Your task to perform on an android device: Add "razer blackwidow" to the cart on costco Image 0: 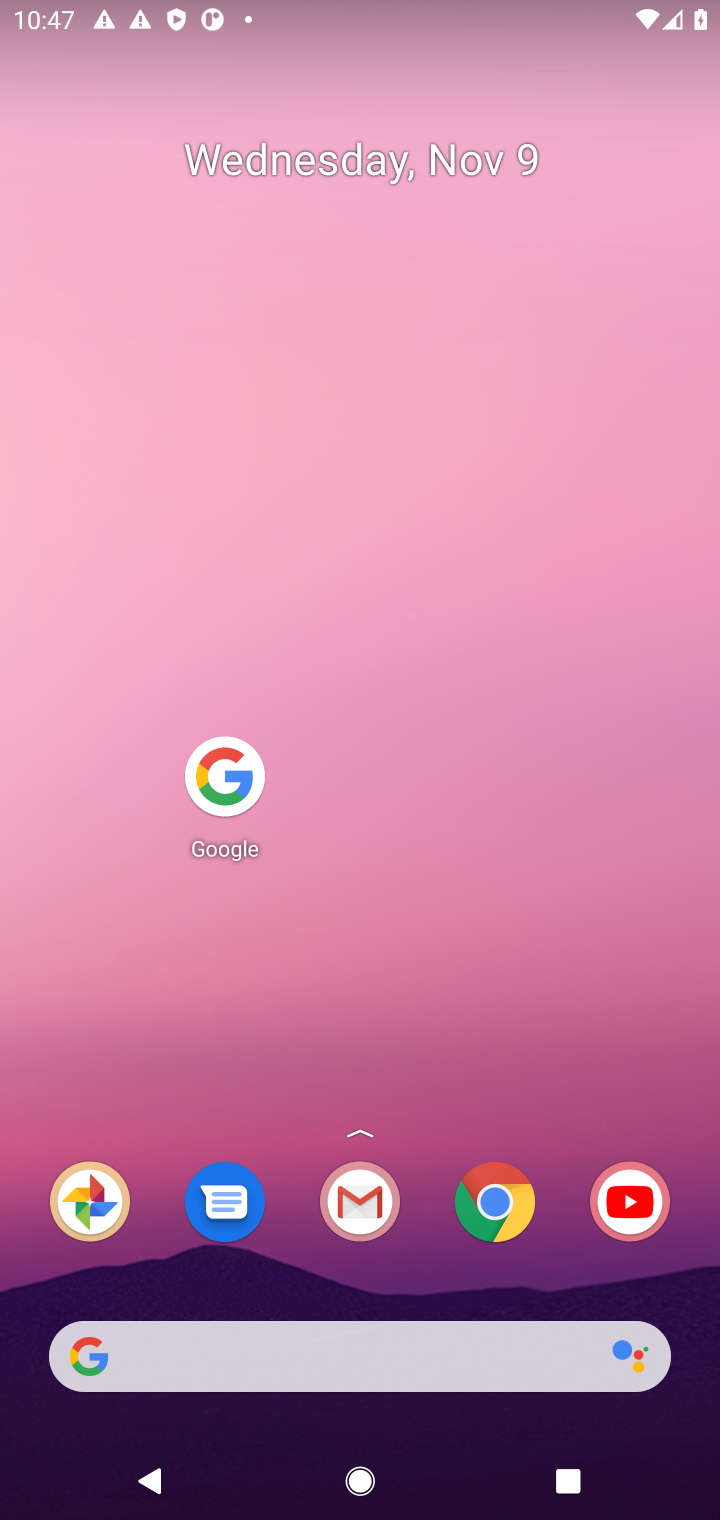
Step 0: click (212, 798)
Your task to perform on an android device: Add "razer blackwidow" to the cart on costco Image 1: 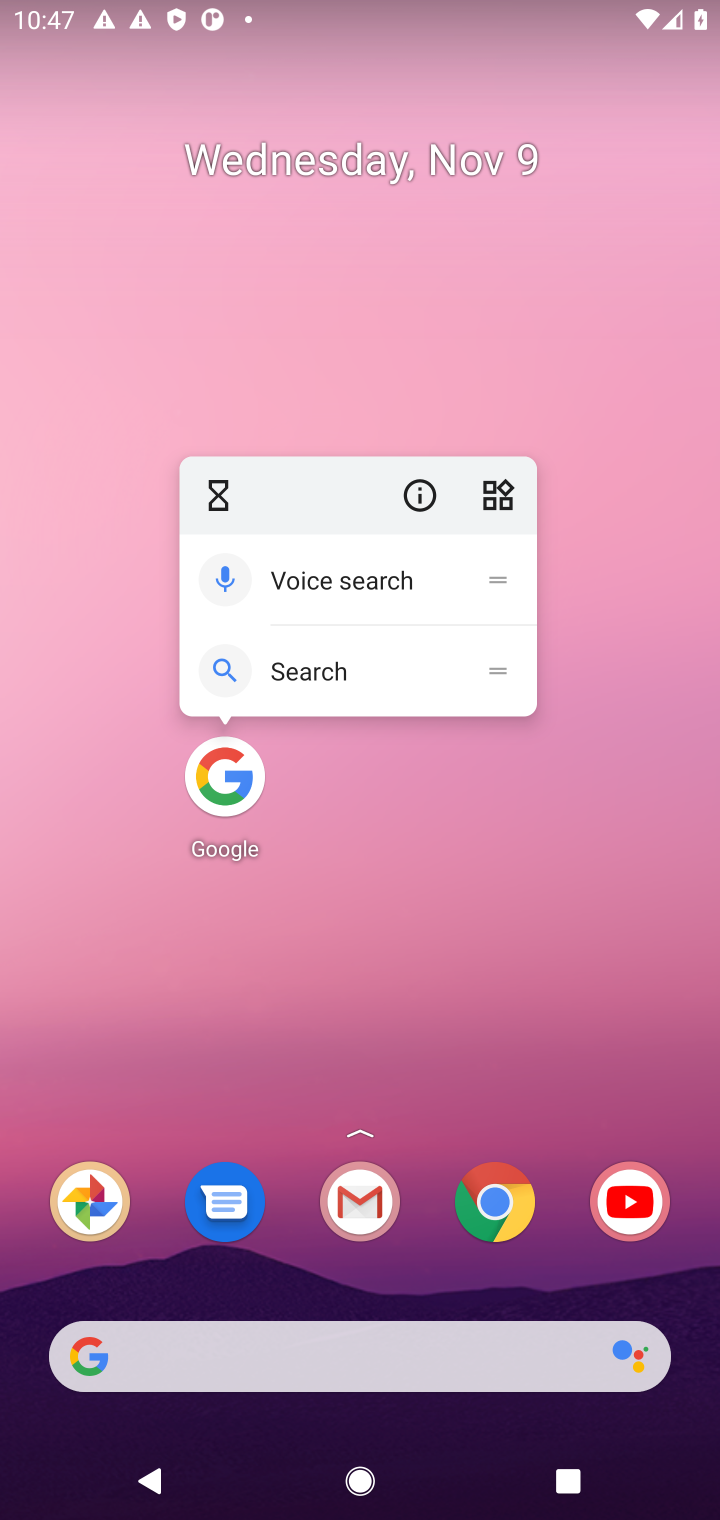
Step 1: click (230, 774)
Your task to perform on an android device: Add "razer blackwidow" to the cart on costco Image 2: 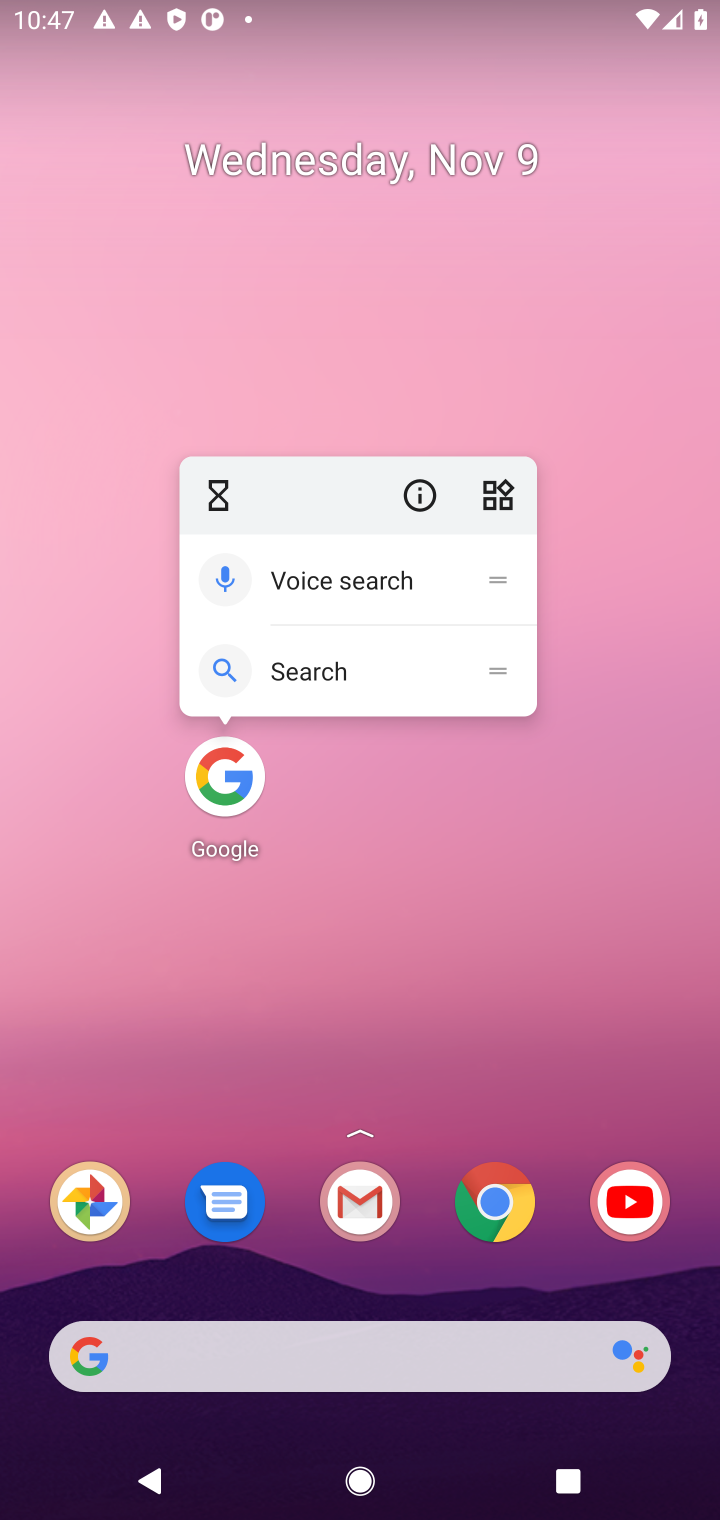
Step 2: click (230, 770)
Your task to perform on an android device: Add "razer blackwidow" to the cart on costco Image 3: 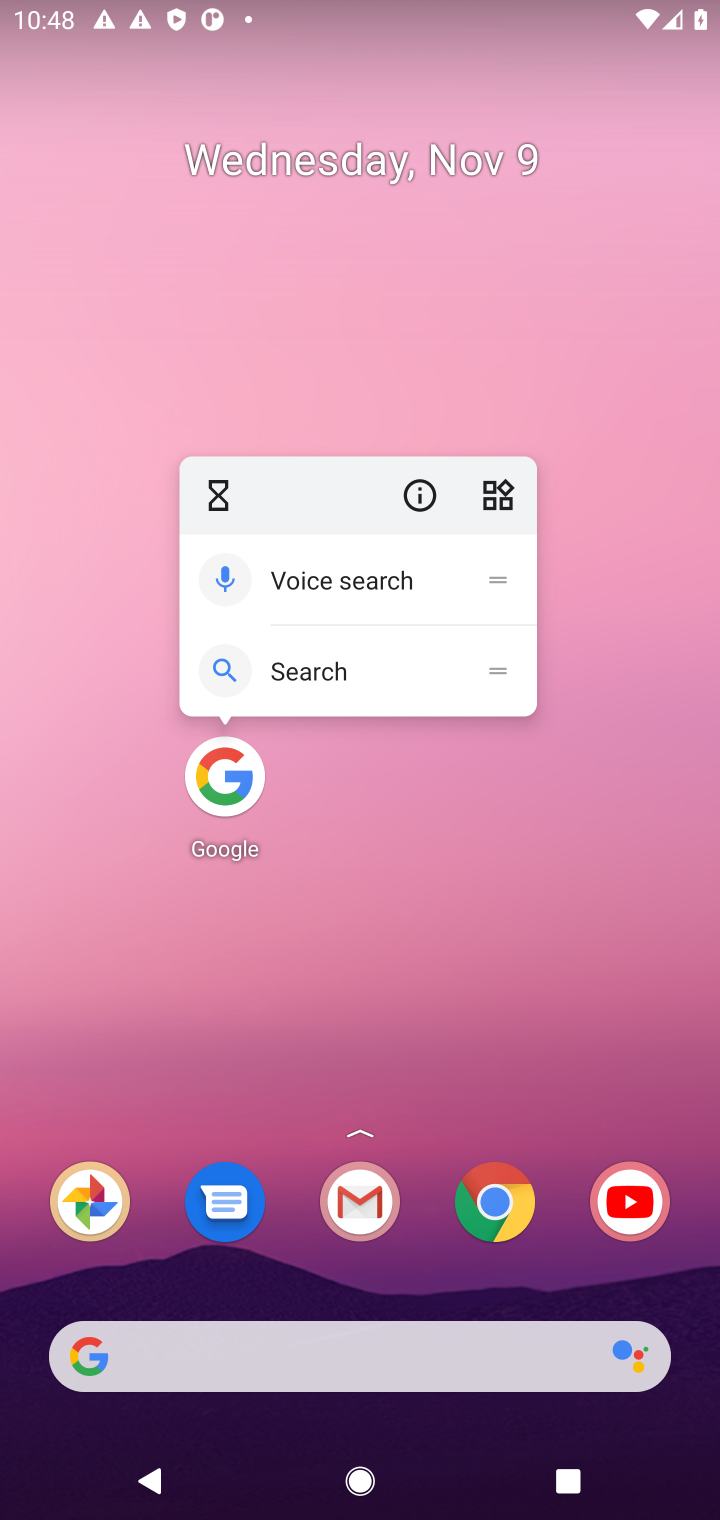
Step 3: click (230, 773)
Your task to perform on an android device: Add "razer blackwidow" to the cart on costco Image 4: 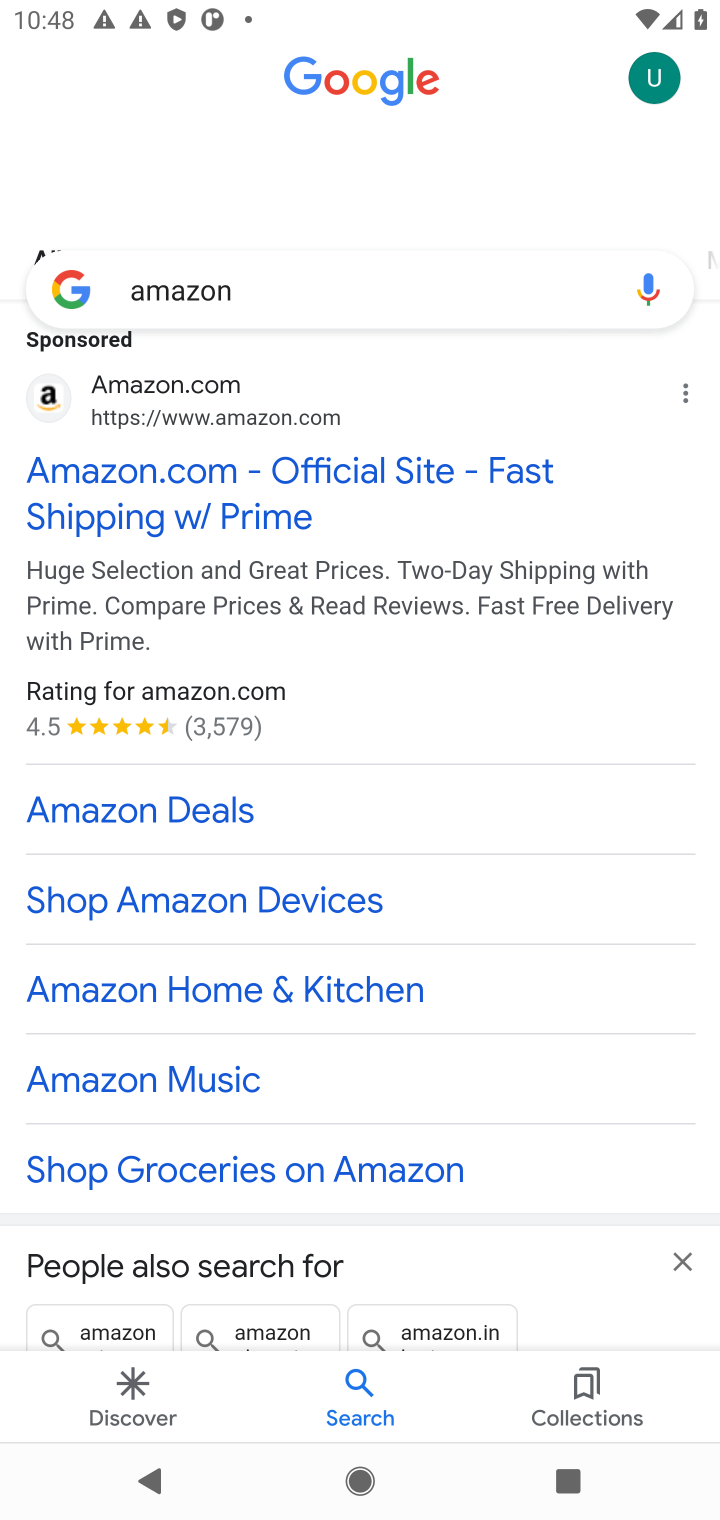
Step 4: click (241, 284)
Your task to perform on an android device: Add "razer blackwidow" to the cart on costco Image 5: 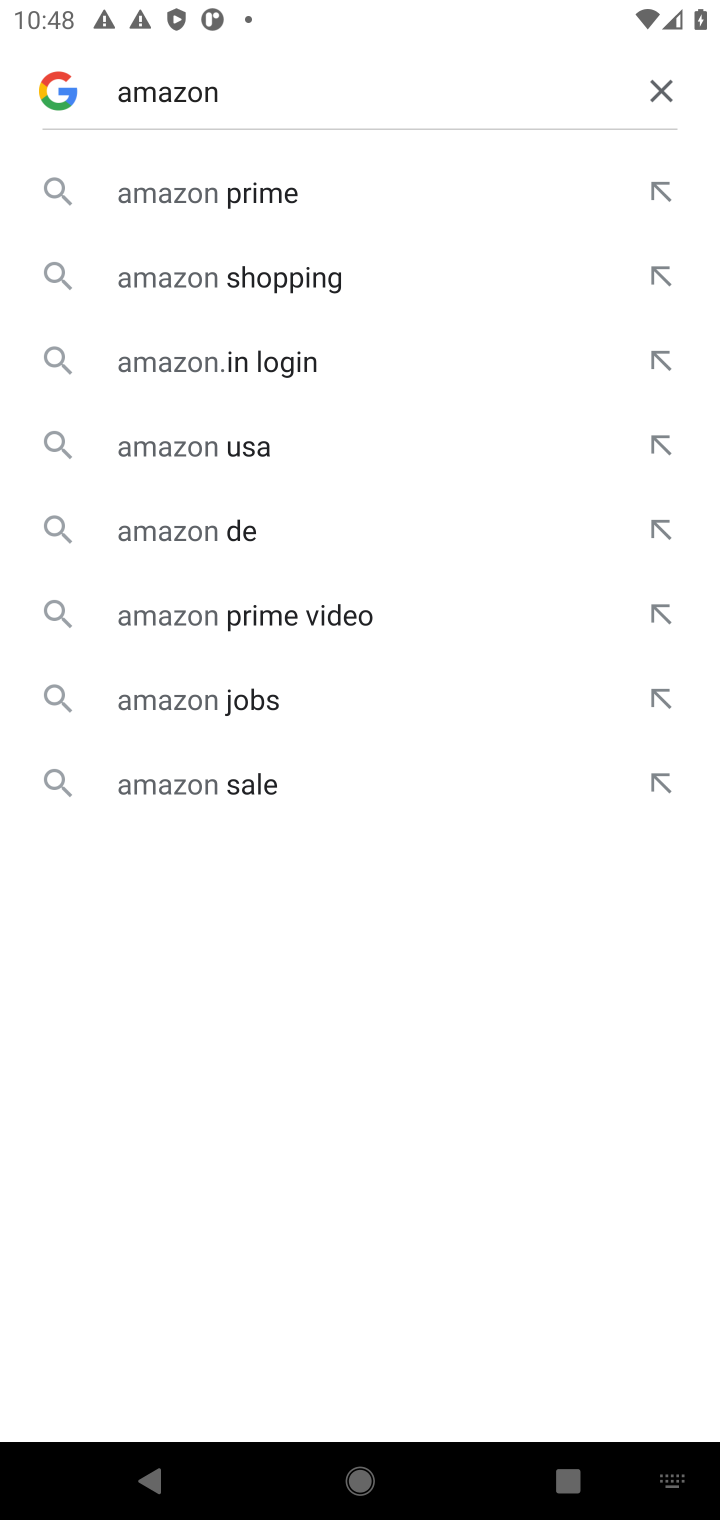
Step 5: click (649, 86)
Your task to perform on an android device: Add "razer blackwidow" to the cart on costco Image 6: 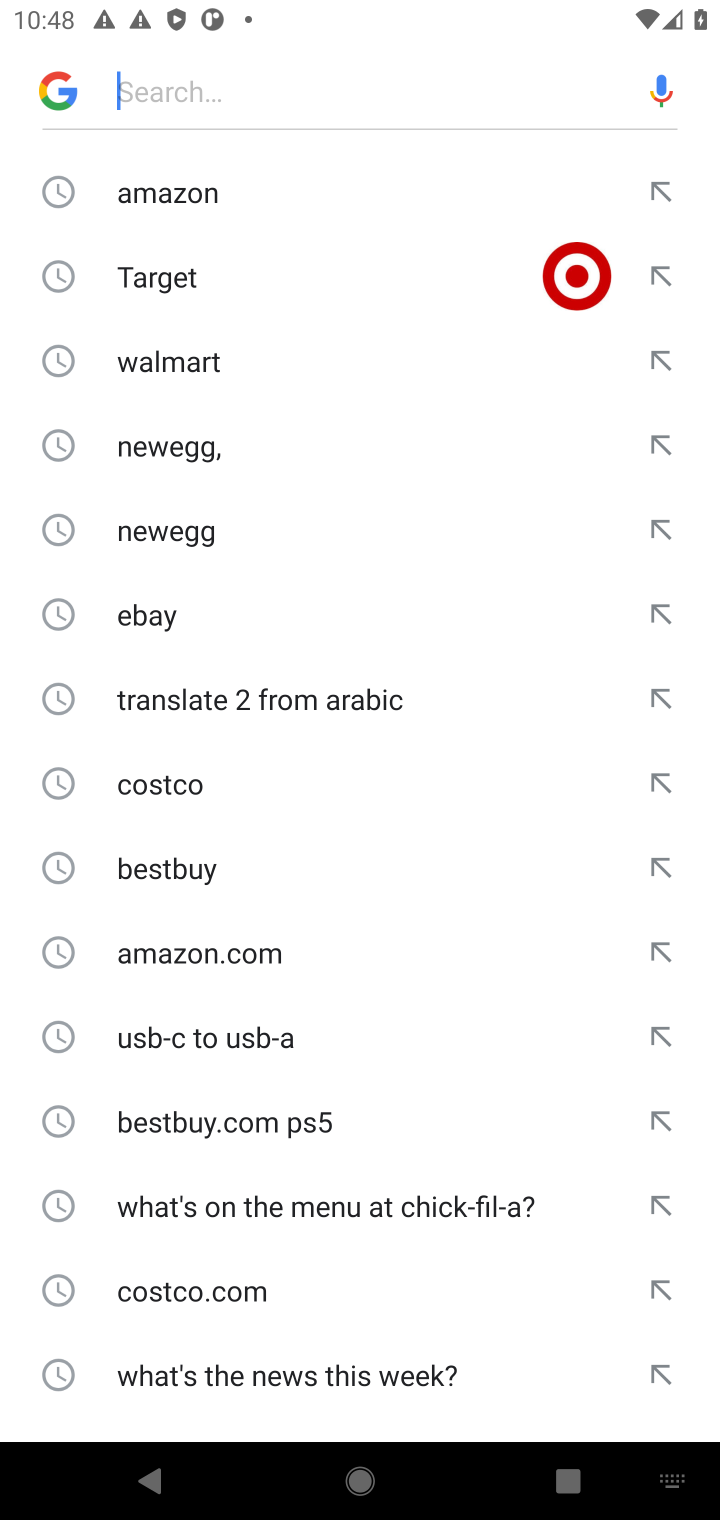
Step 6: click (188, 789)
Your task to perform on an android device: Add "razer blackwidow" to the cart on costco Image 7: 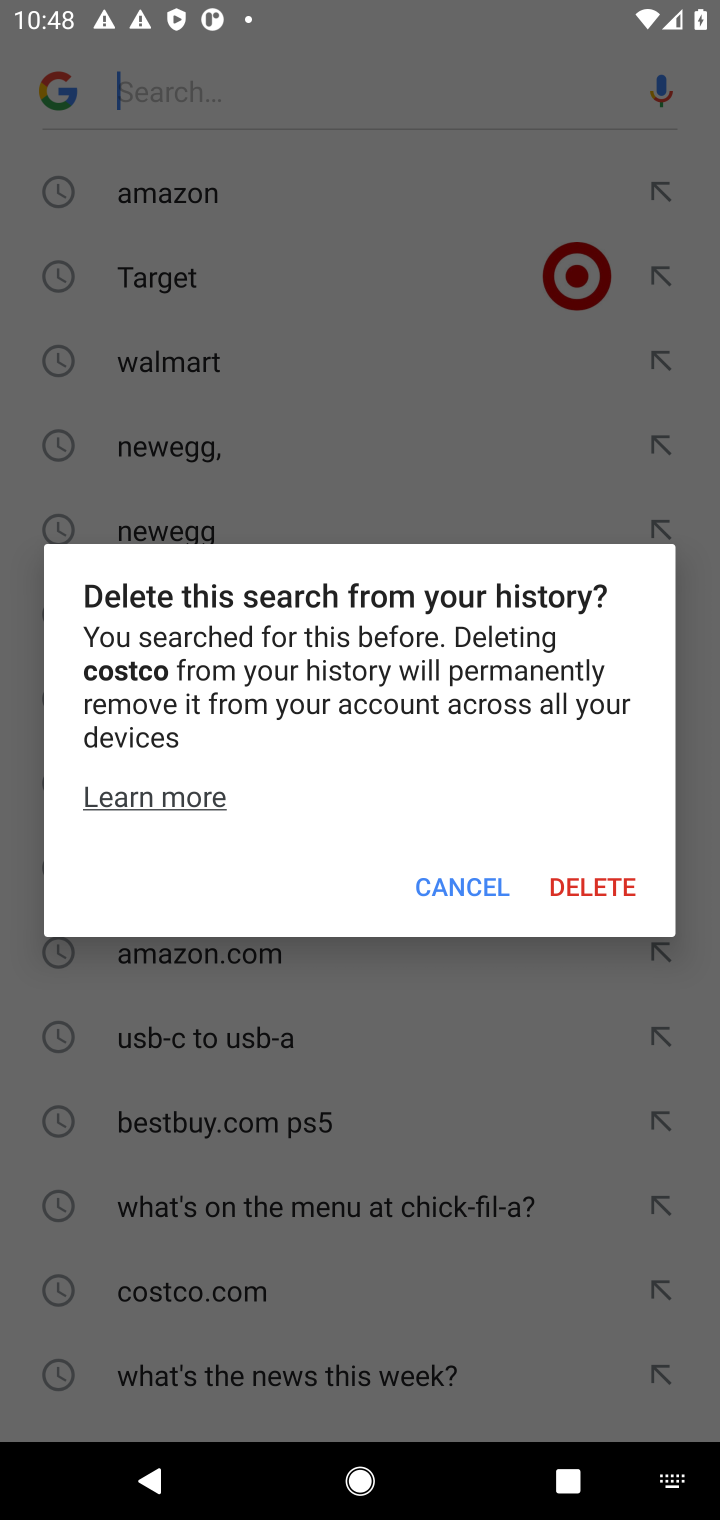
Step 7: click (447, 887)
Your task to perform on an android device: Add "razer blackwidow" to the cart on costco Image 8: 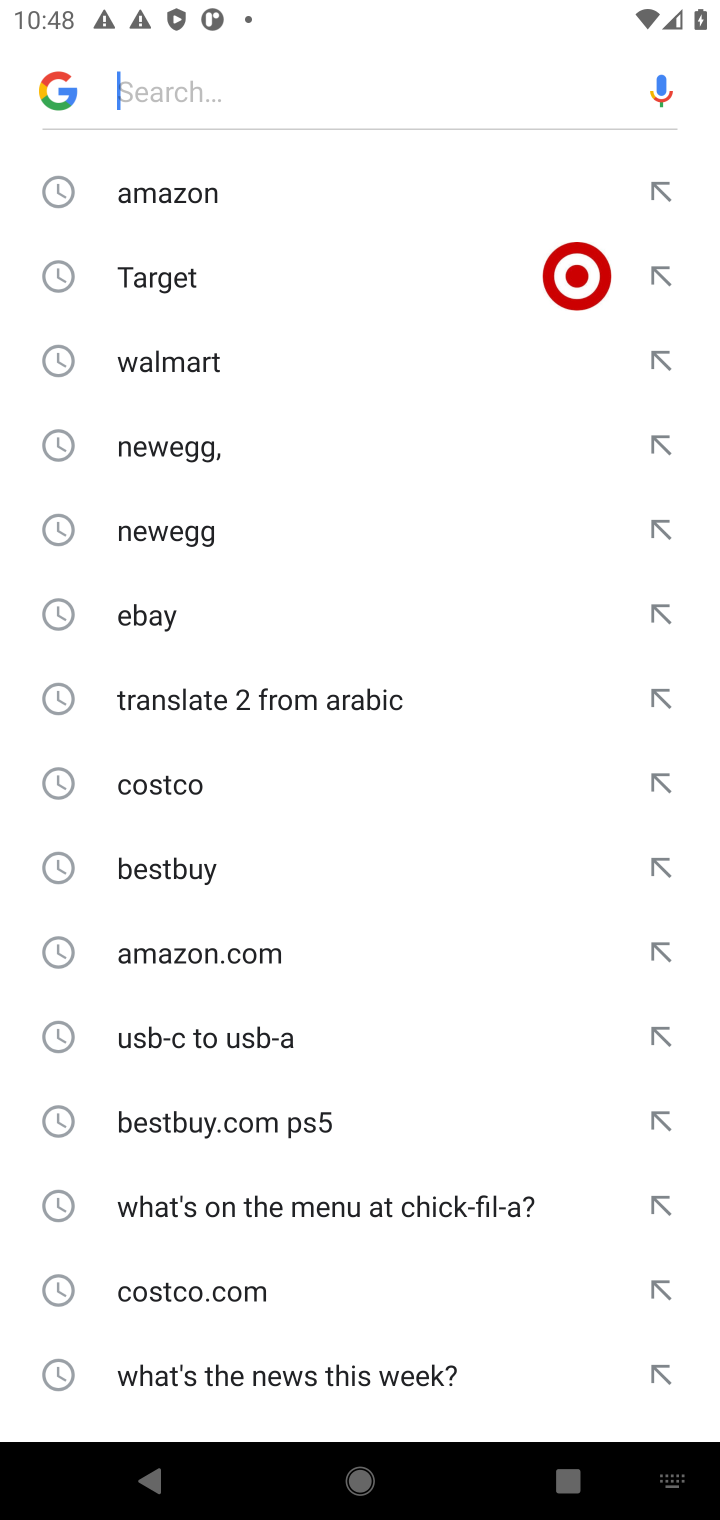
Step 8: click (130, 787)
Your task to perform on an android device: Add "razer blackwidow" to the cart on costco Image 9: 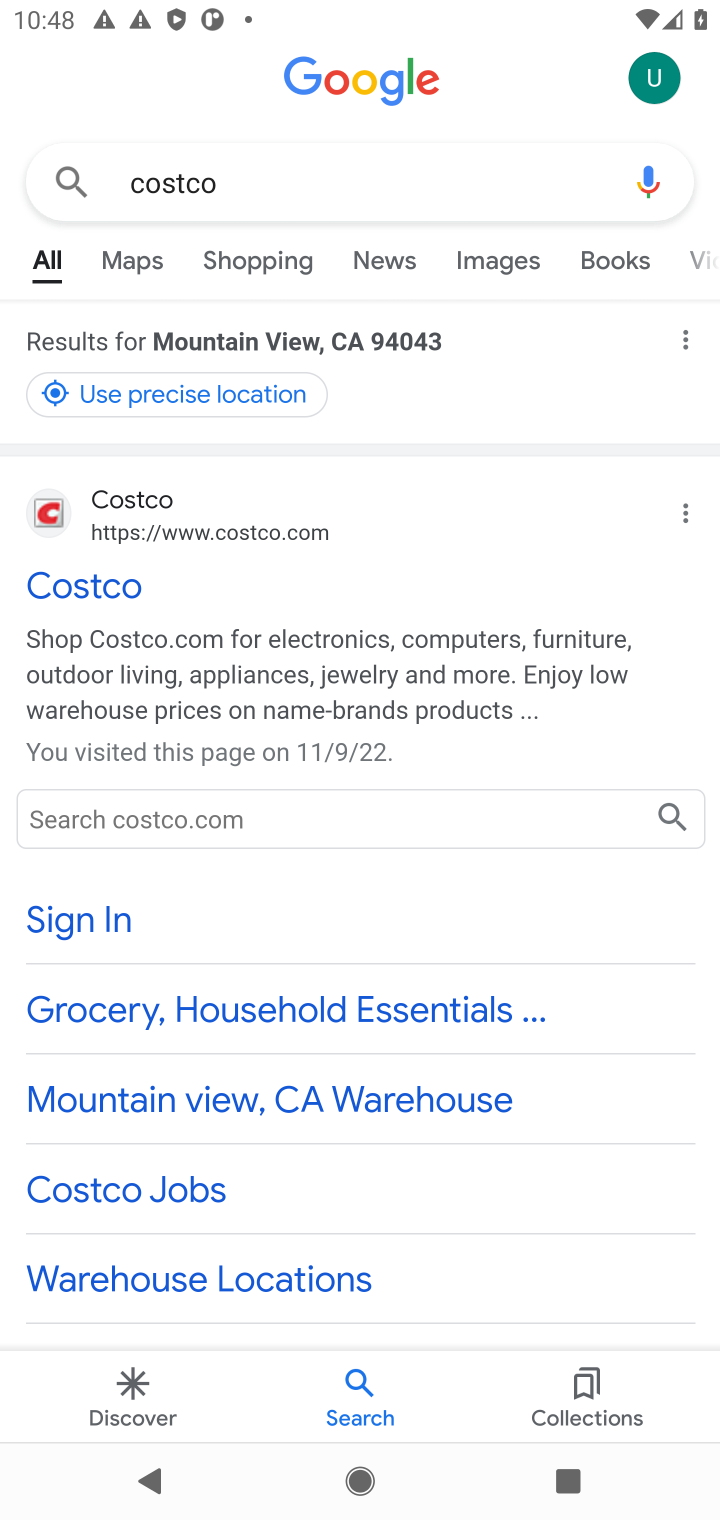
Step 9: click (112, 580)
Your task to perform on an android device: Add "razer blackwidow" to the cart on costco Image 10: 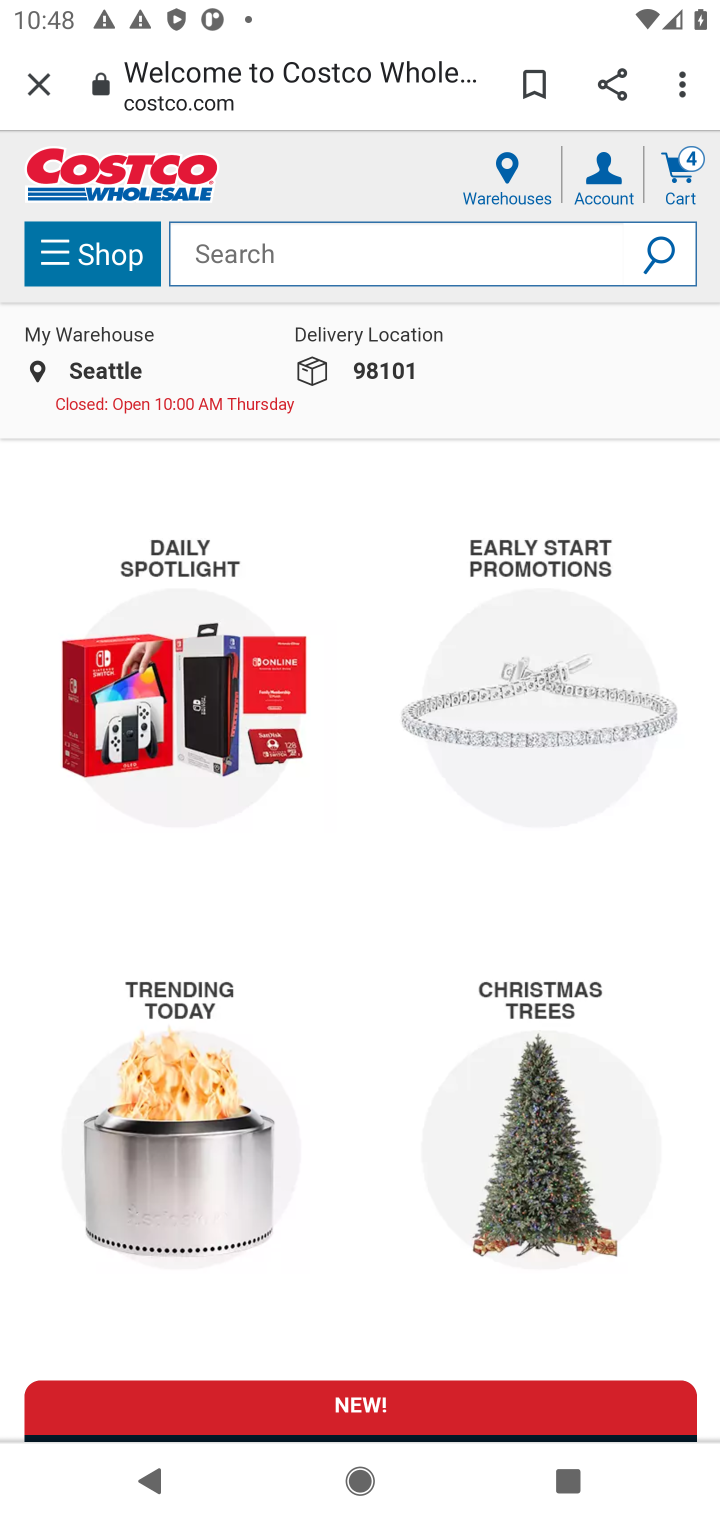
Step 10: click (305, 261)
Your task to perform on an android device: Add "razer blackwidow" to the cart on costco Image 11: 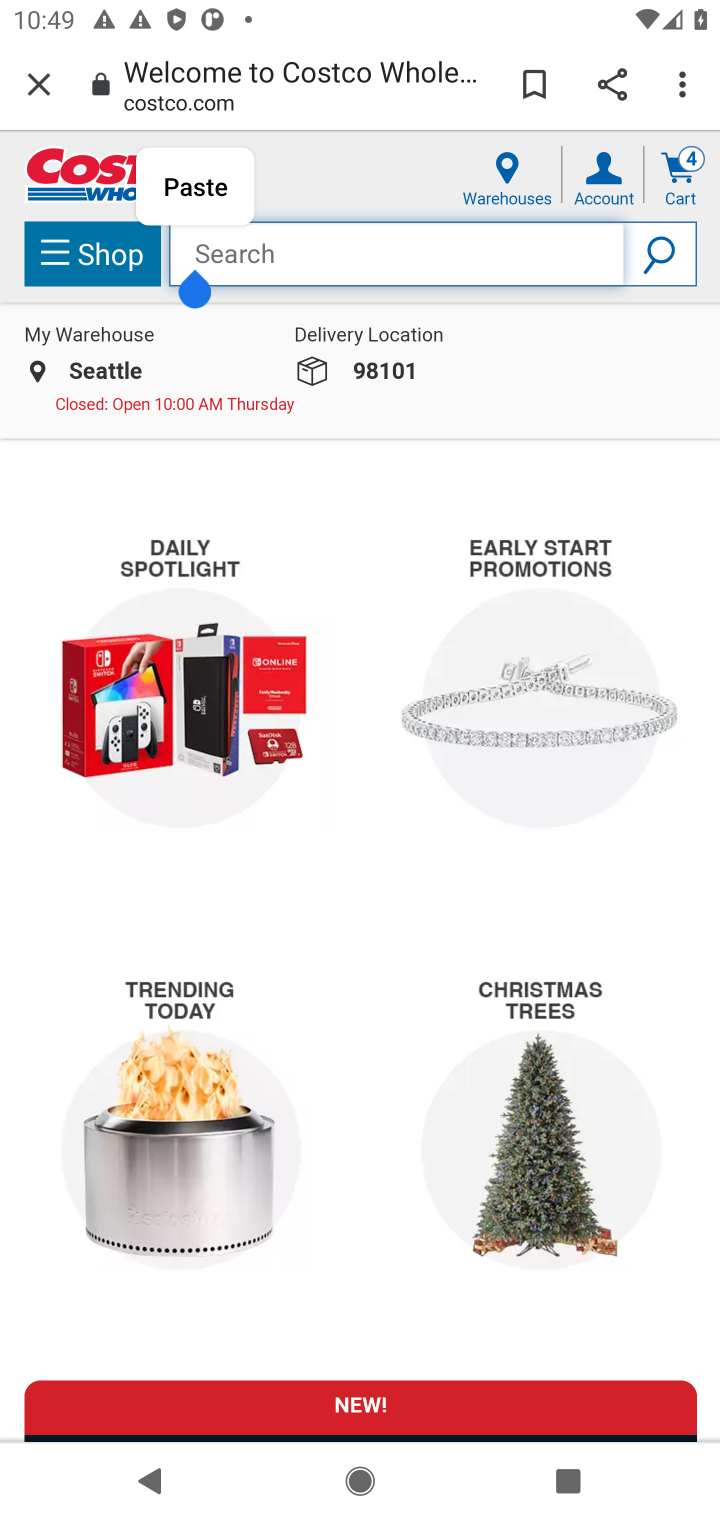
Step 11: press enter
Your task to perform on an android device: Add "razer blackwidow" to the cart on costco Image 12: 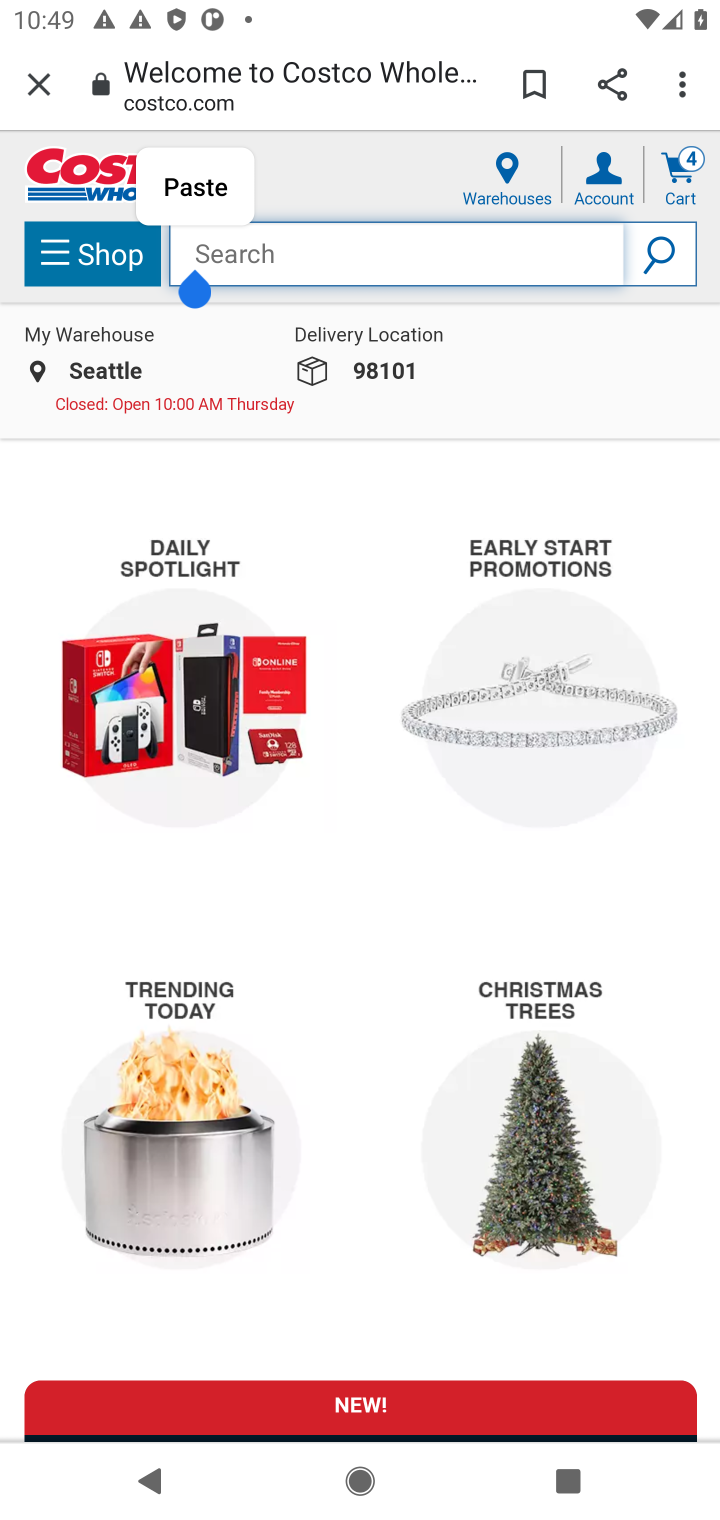
Step 12: type "razer blackwidow"
Your task to perform on an android device: Add "razer blackwidow" to the cart on costco Image 13: 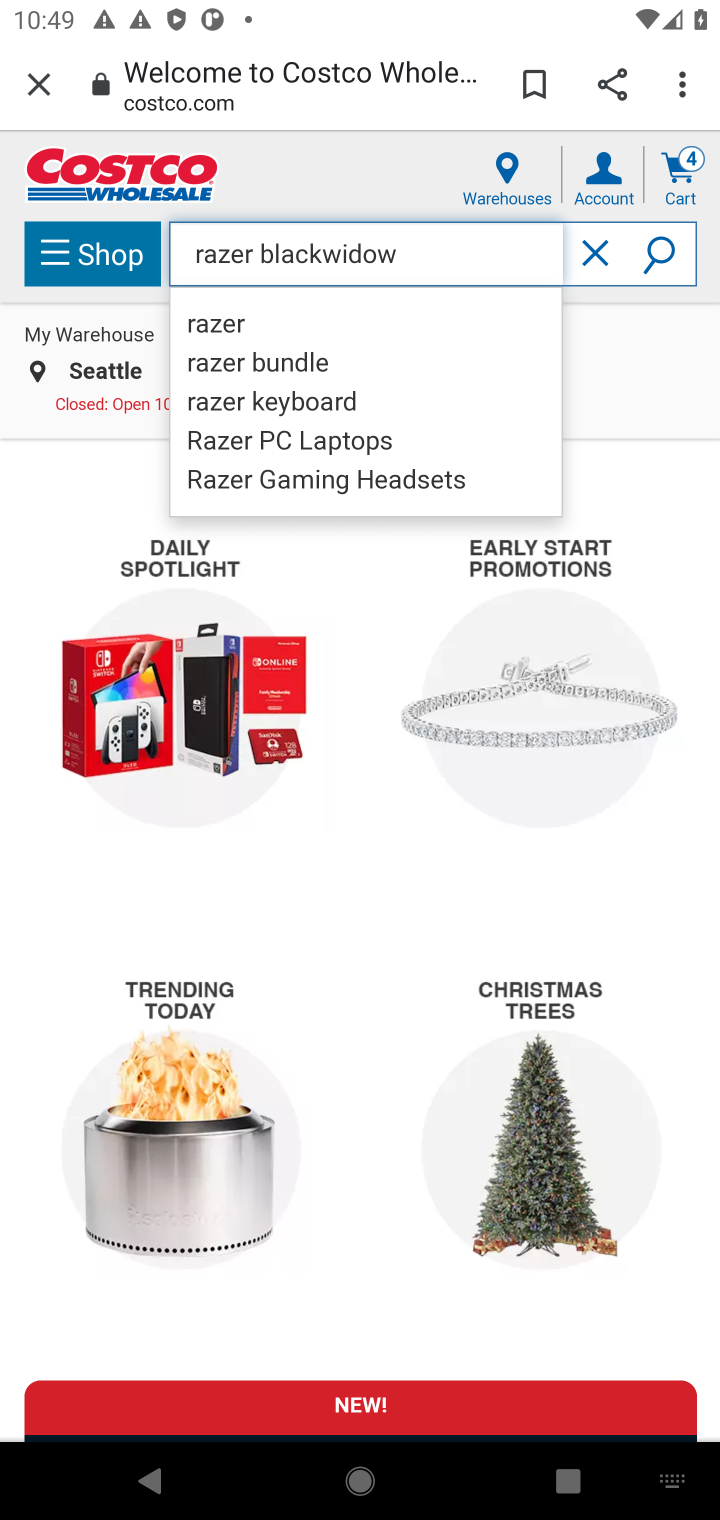
Step 13: press enter
Your task to perform on an android device: Add "razer blackwidow" to the cart on costco Image 14: 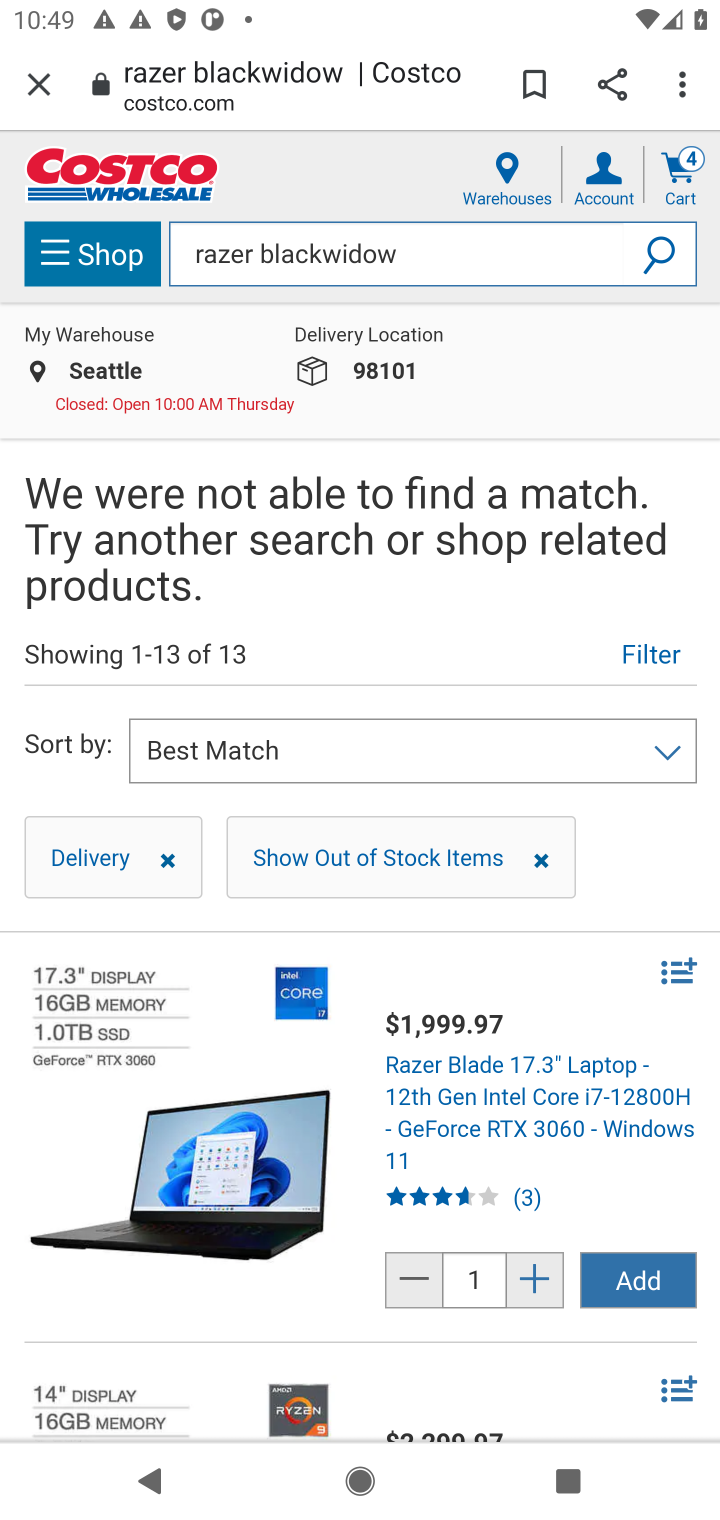
Step 14: task complete